Your task to perform on an android device: change notifications settings Image 0: 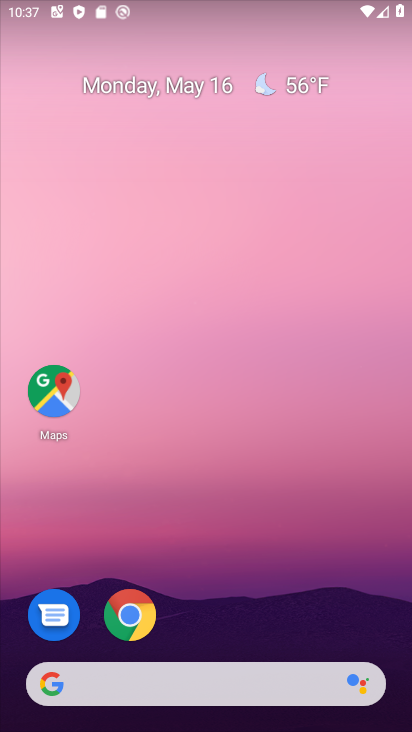
Step 0: drag from (210, 707) to (262, 171)
Your task to perform on an android device: change notifications settings Image 1: 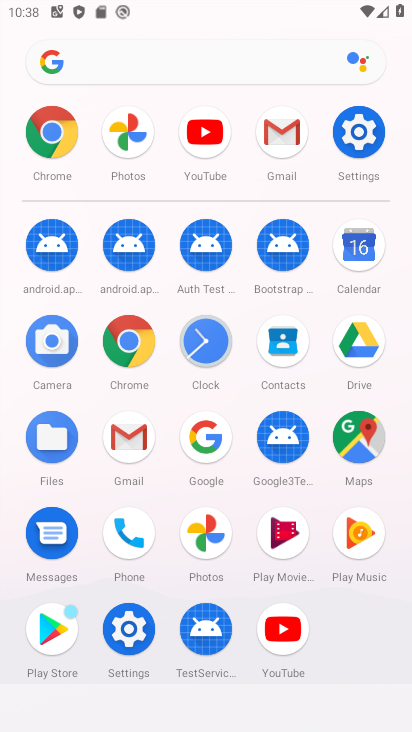
Step 1: click (350, 146)
Your task to perform on an android device: change notifications settings Image 2: 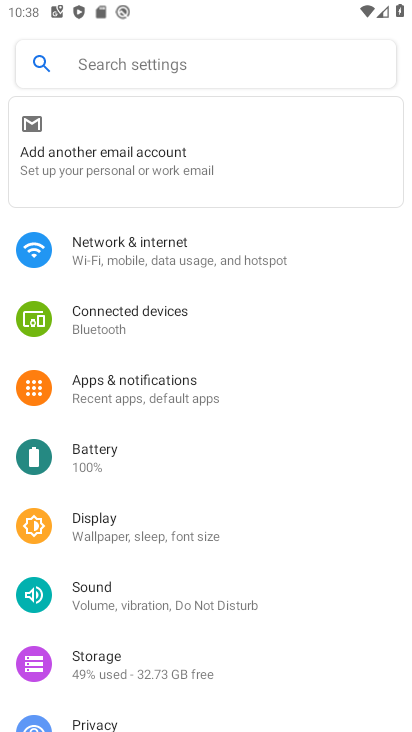
Step 2: click (115, 72)
Your task to perform on an android device: change notifications settings Image 3: 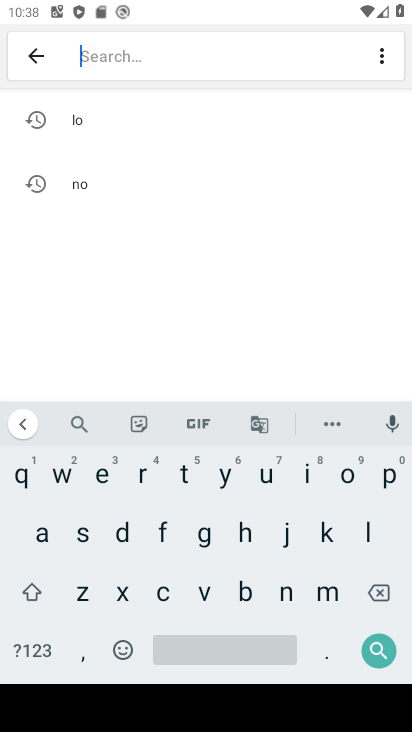
Step 3: click (291, 591)
Your task to perform on an android device: change notifications settings Image 4: 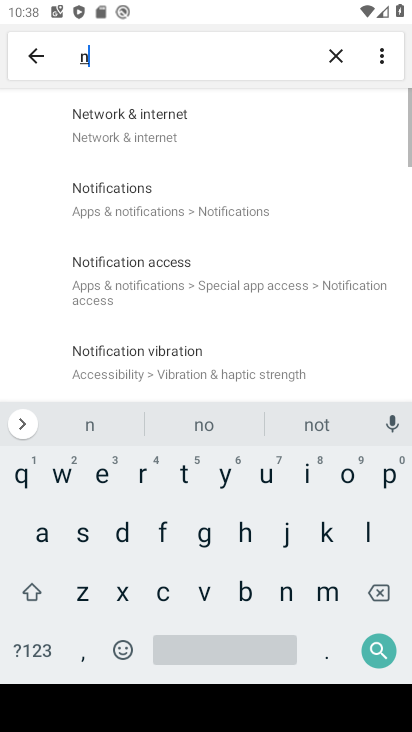
Step 4: click (343, 475)
Your task to perform on an android device: change notifications settings Image 5: 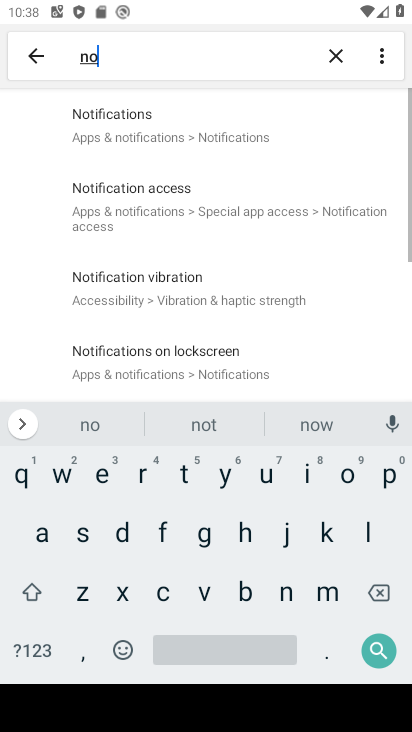
Step 5: click (136, 132)
Your task to perform on an android device: change notifications settings Image 6: 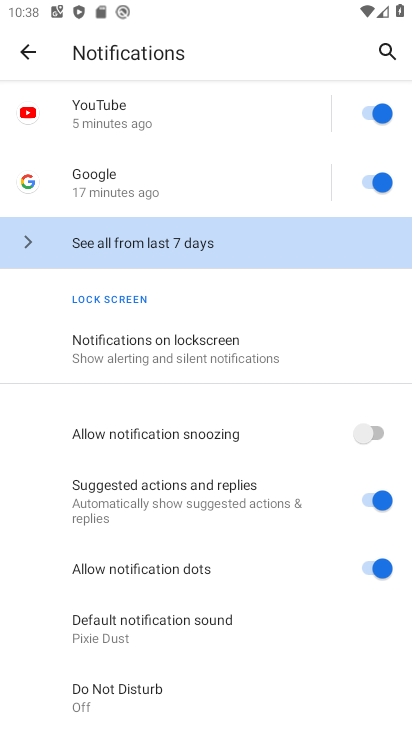
Step 6: click (135, 347)
Your task to perform on an android device: change notifications settings Image 7: 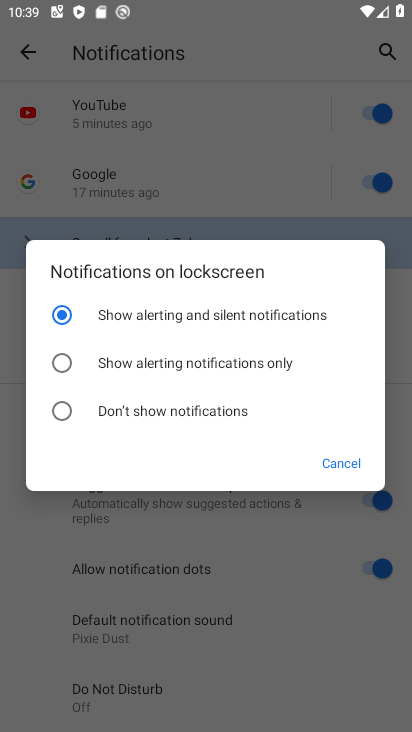
Step 7: click (124, 359)
Your task to perform on an android device: change notifications settings Image 8: 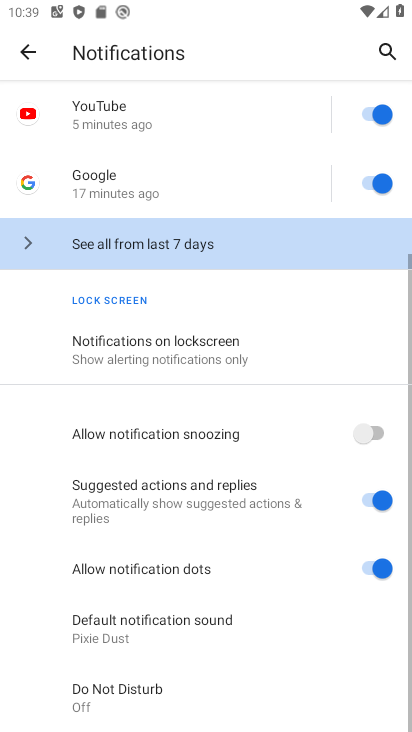
Step 8: task complete